Your task to perform on an android device: Is it going to rain this weekend? Image 0: 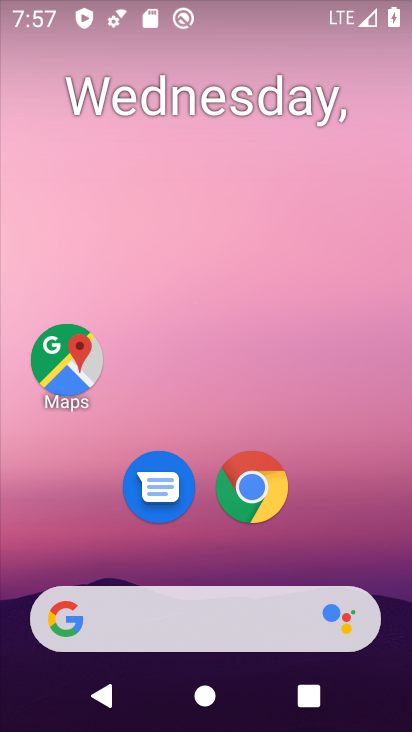
Step 0: click (217, 612)
Your task to perform on an android device: Is it going to rain this weekend? Image 1: 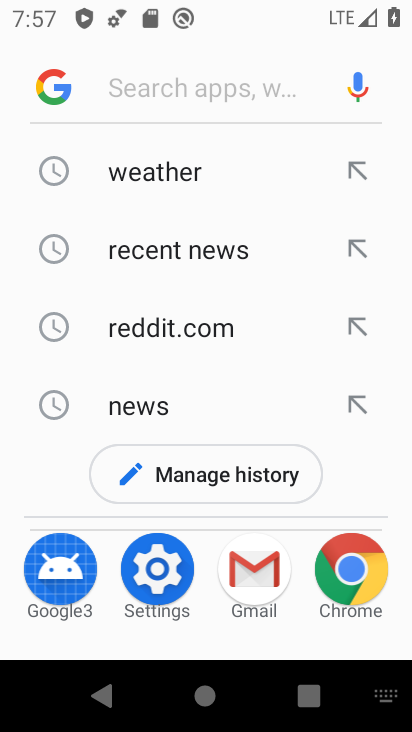
Step 1: click (184, 170)
Your task to perform on an android device: Is it going to rain this weekend? Image 2: 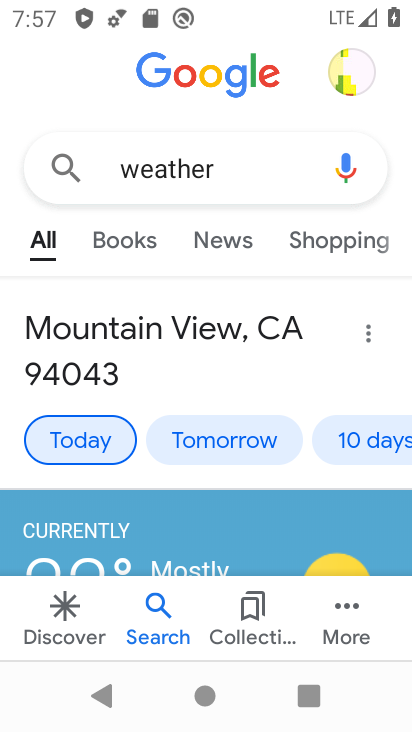
Step 2: click (360, 432)
Your task to perform on an android device: Is it going to rain this weekend? Image 3: 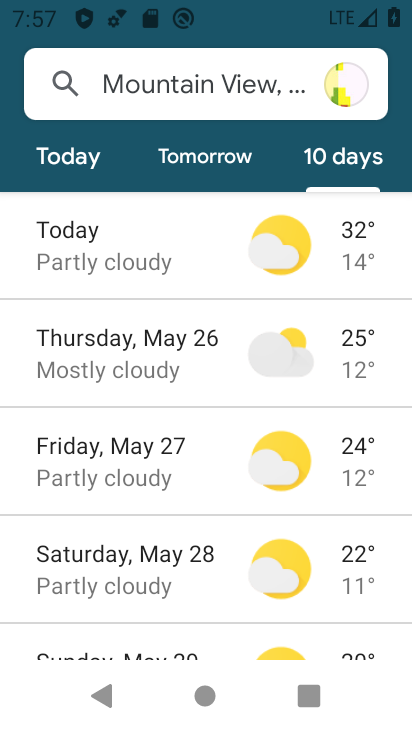
Step 3: task complete